Your task to perform on an android device: toggle javascript in the chrome app Image 0: 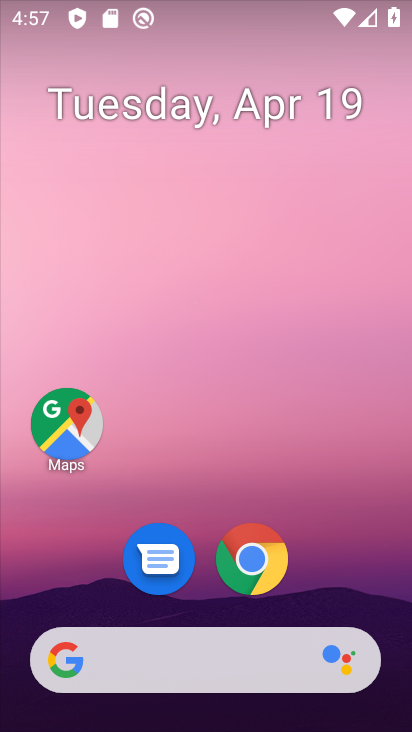
Step 0: click (264, 528)
Your task to perform on an android device: toggle javascript in the chrome app Image 1: 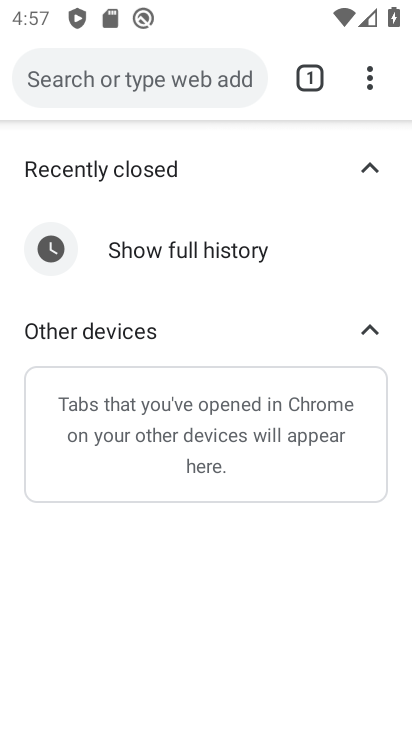
Step 1: click (389, 83)
Your task to perform on an android device: toggle javascript in the chrome app Image 2: 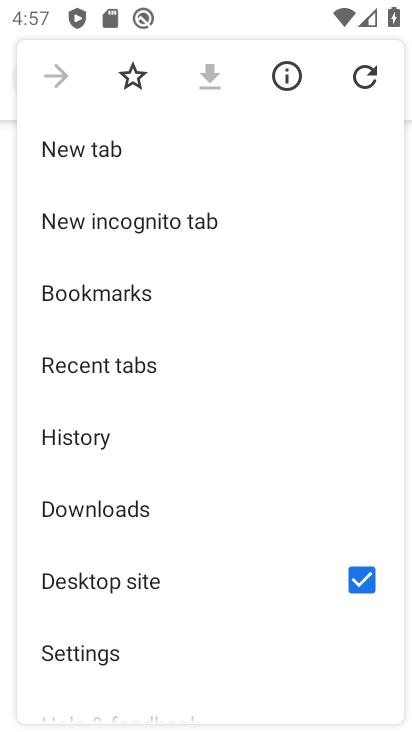
Step 2: click (212, 631)
Your task to perform on an android device: toggle javascript in the chrome app Image 3: 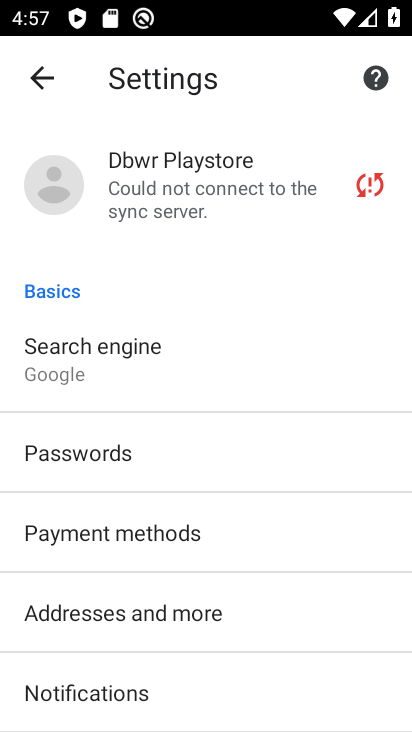
Step 3: drag from (248, 631) to (208, 126)
Your task to perform on an android device: toggle javascript in the chrome app Image 4: 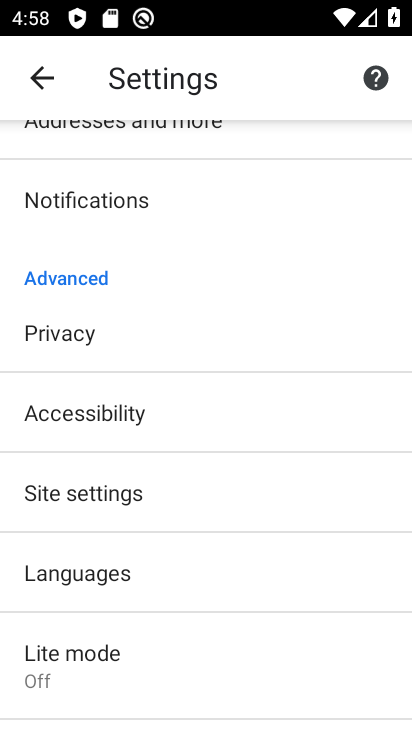
Step 4: click (175, 498)
Your task to perform on an android device: toggle javascript in the chrome app Image 5: 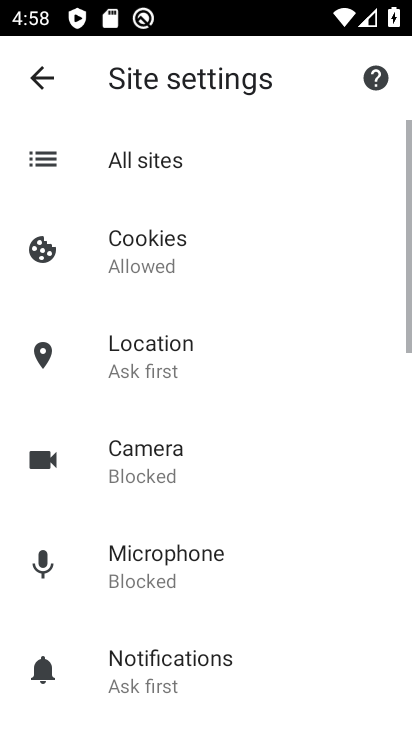
Step 5: drag from (160, 555) to (74, 250)
Your task to perform on an android device: toggle javascript in the chrome app Image 6: 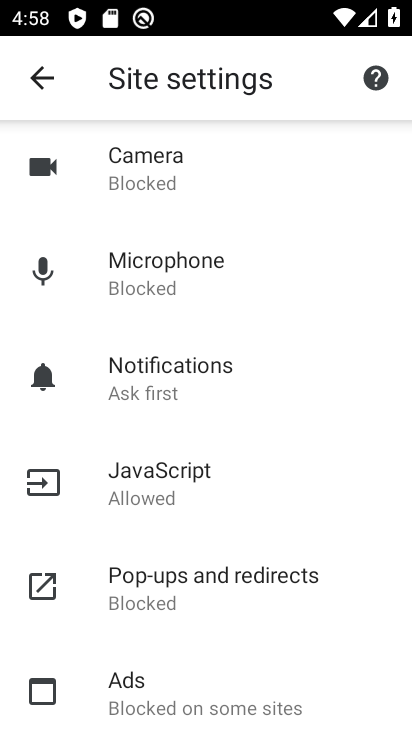
Step 6: click (119, 509)
Your task to perform on an android device: toggle javascript in the chrome app Image 7: 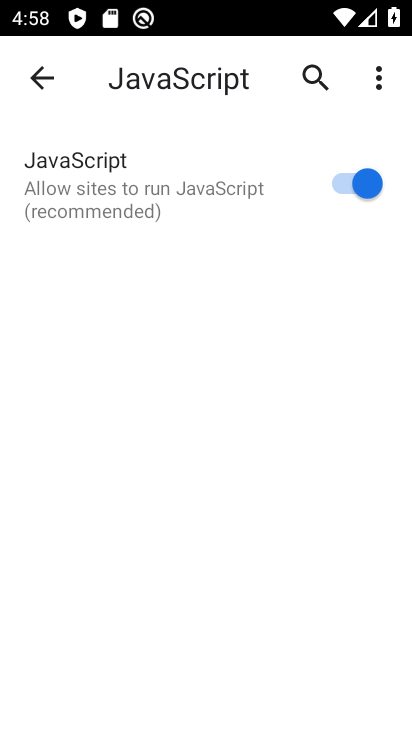
Step 7: click (357, 206)
Your task to perform on an android device: toggle javascript in the chrome app Image 8: 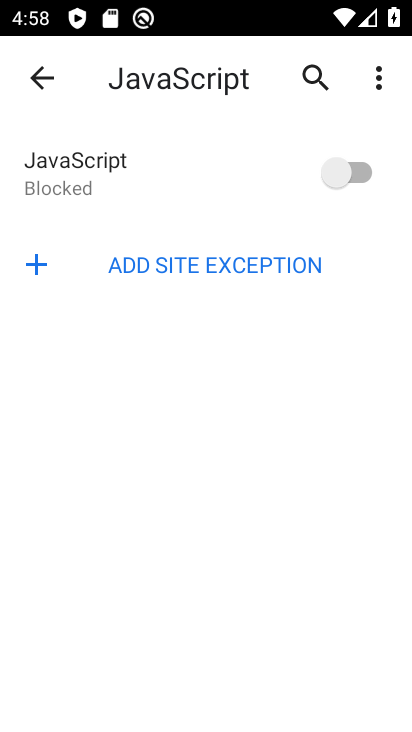
Step 8: task complete